Your task to perform on an android device: When is my next appointment? Image 0: 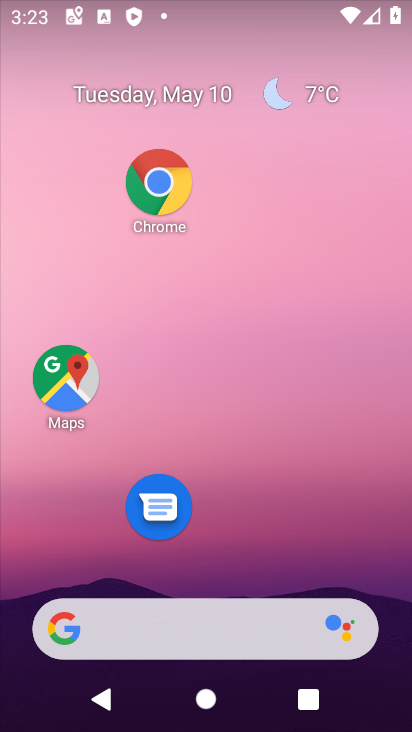
Step 0: drag from (244, 561) to (225, 143)
Your task to perform on an android device: When is my next appointment? Image 1: 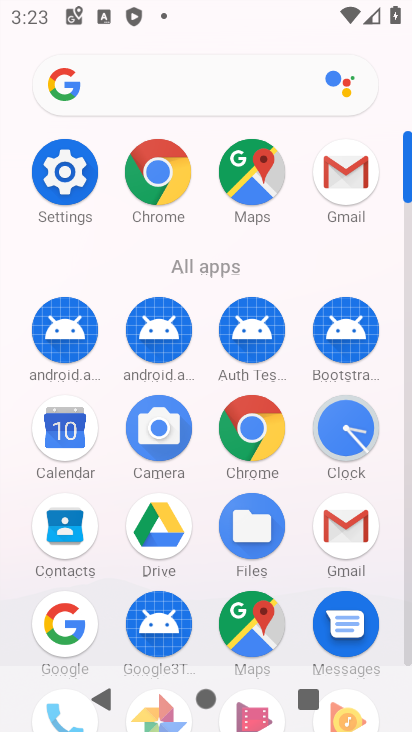
Step 1: click (72, 421)
Your task to perform on an android device: When is my next appointment? Image 2: 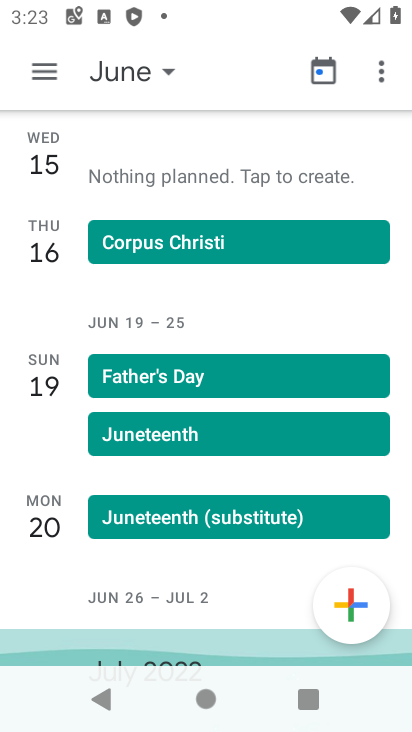
Step 2: task complete